Your task to perform on an android device: Go to Google maps Image 0: 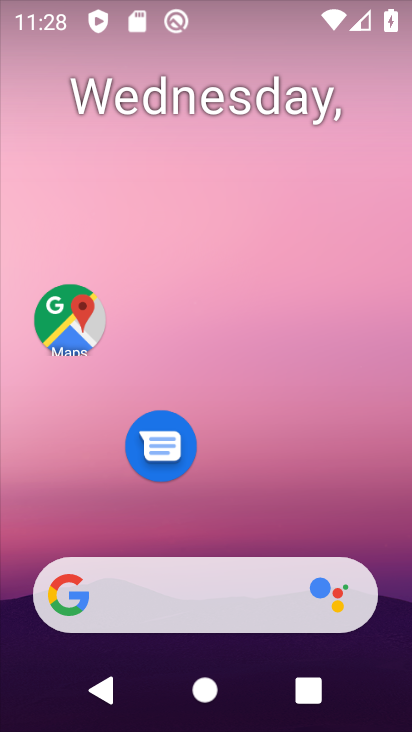
Step 0: click (61, 318)
Your task to perform on an android device: Go to Google maps Image 1: 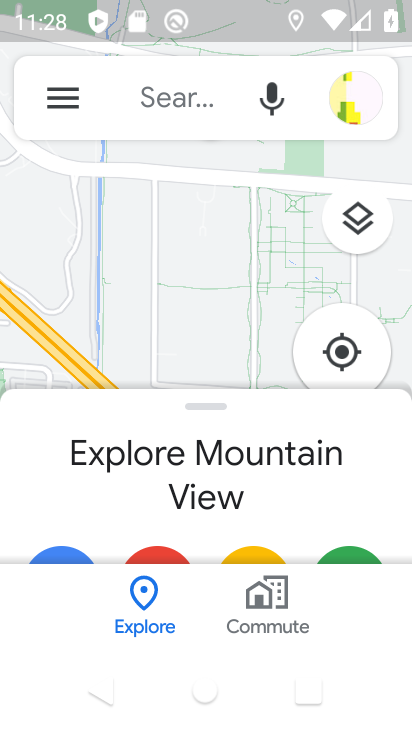
Step 1: task complete